Your task to perform on an android device: Open Youtube and go to "Your channel" Image 0: 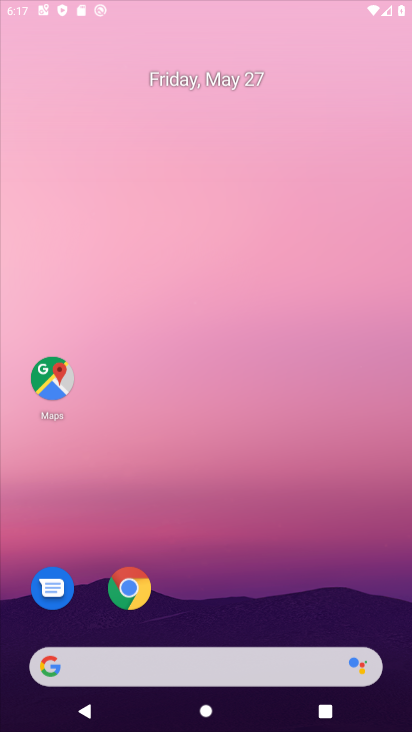
Step 0: click (360, 81)
Your task to perform on an android device: Open Youtube and go to "Your channel" Image 1: 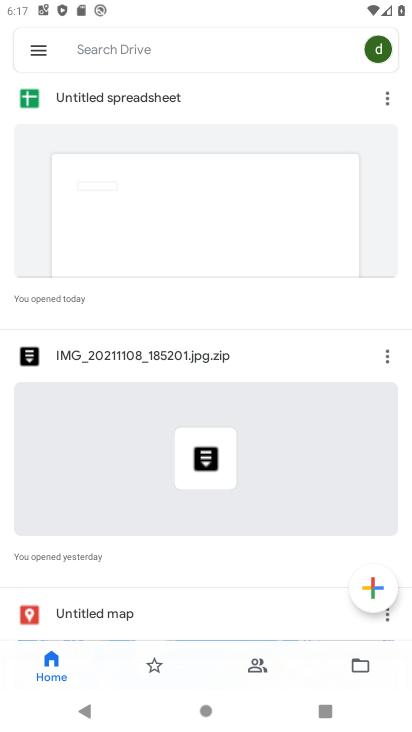
Step 1: press home button
Your task to perform on an android device: Open Youtube and go to "Your channel" Image 2: 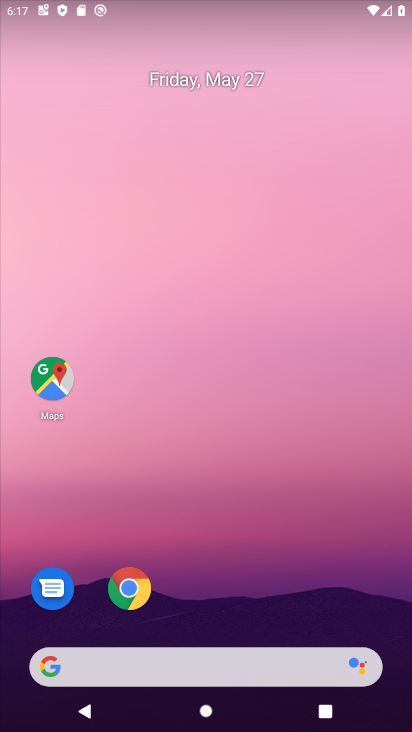
Step 2: drag from (300, 620) to (309, 146)
Your task to perform on an android device: Open Youtube and go to "Your channel" Image 3: 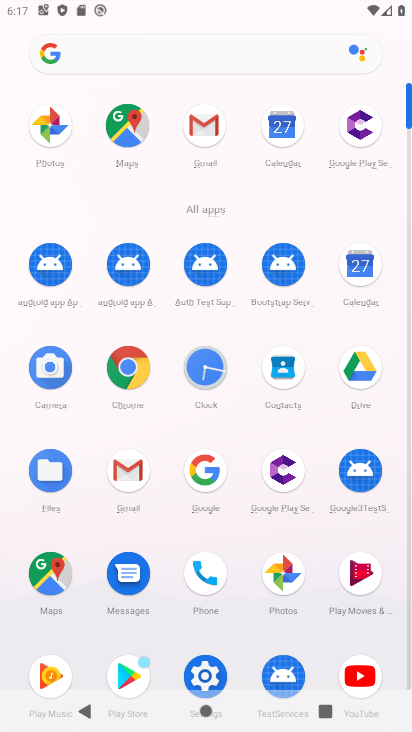
Step 3: click (347, 663)
Your task to perform on an android device: Open Youtube and go to "Your channel" Image 4: 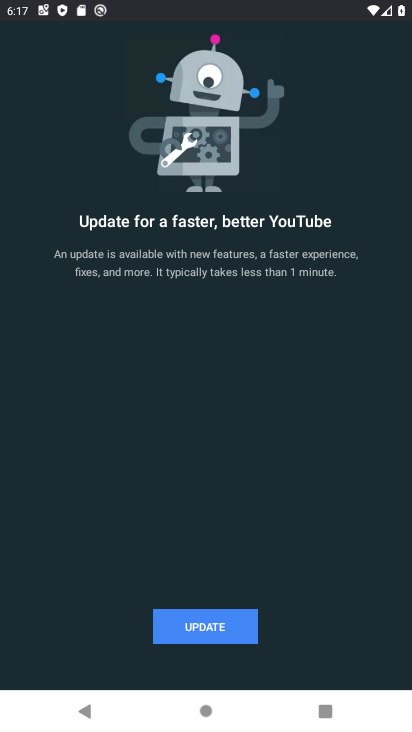
Step 4: click (213, 621)
Your task to perform on an android device: Open Youtube and go to "Your channel" Image 5: 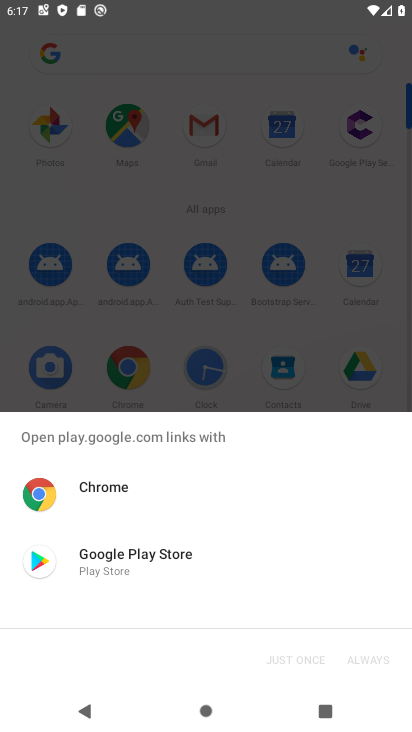
Step 5: click (133, 558)
Your task to perform on an android device: Open Youtube and go to "Your channel" Image 6: 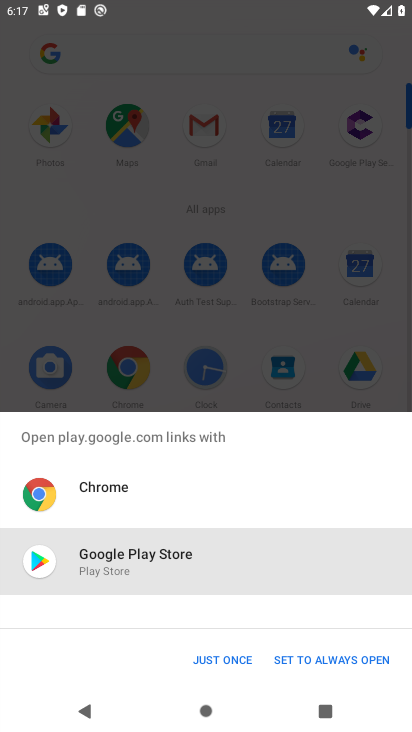
Step 6: click (233, 663)
Your task to perform on an android device: Open Youtube and go to "Your channel" Image 7: 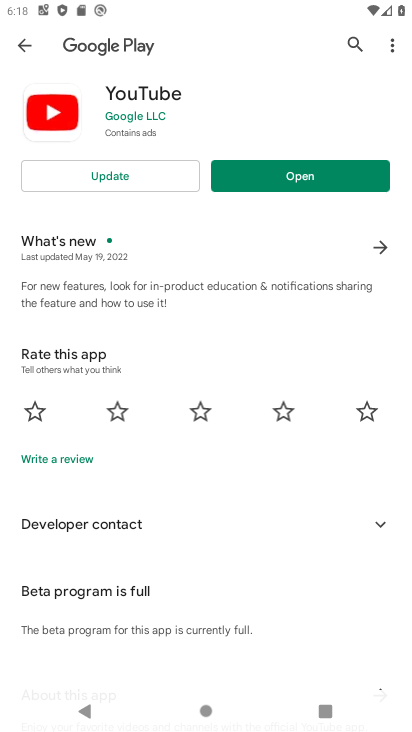
Step 7: click (132, 168)
Your task to perform on an android device: Open Youtube and go to "Your channel" Image 8: 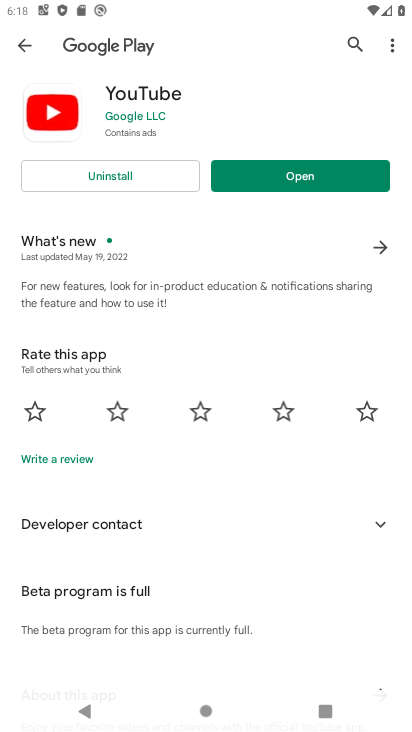
Step 8: click (271, 172)
Your task to perform on an android device: Open Youtube and go to "Your channel" Image 9: 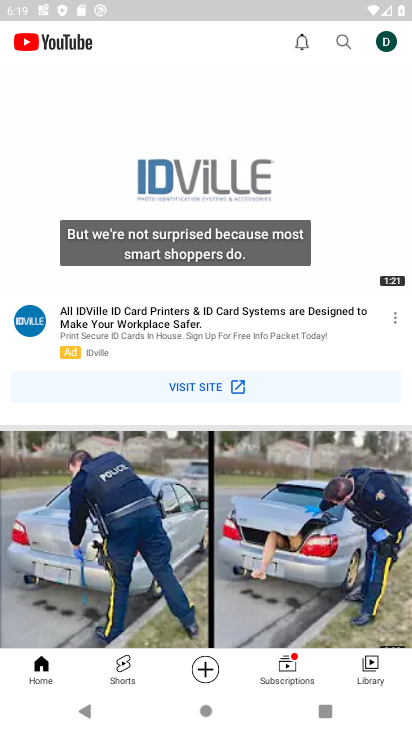
Step 9: click (389, 36)
Your task to perform on an android device: Open Youtube and go to "Your channel" Image 10: 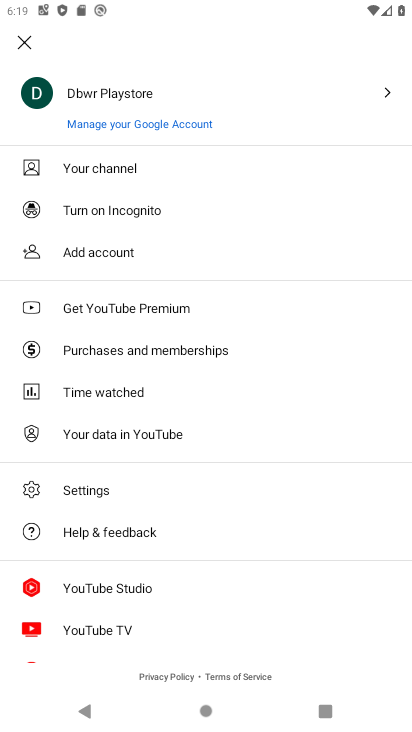
Step 10: click (108, 160)
Your task to perform on an android device: Open Youtube and go to "Your channel" Image 11: 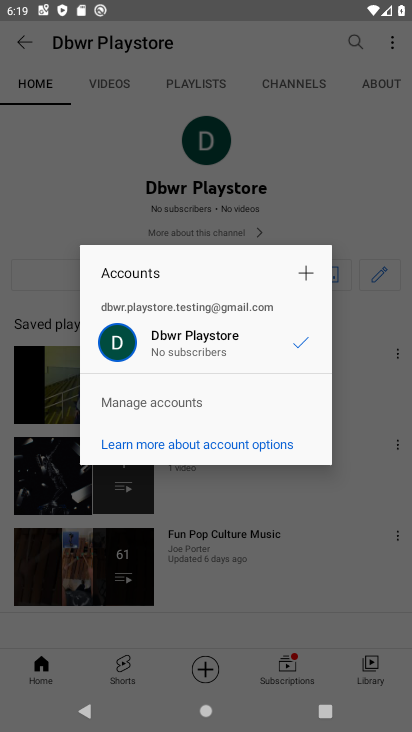
Step 11: click (184, 351)
Your task to perform on an android device: Open Youtube and go to "Your channel" Image 12: 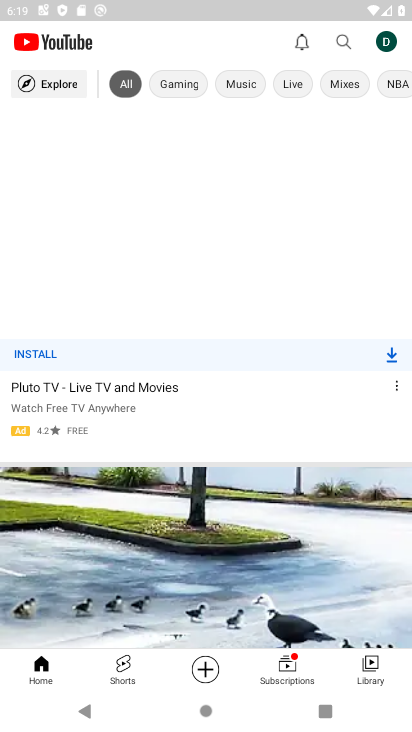
Step 12: task complete